Your task to perform on an android device: open app "Viber Messenger" (install if not already installed) Image 0: 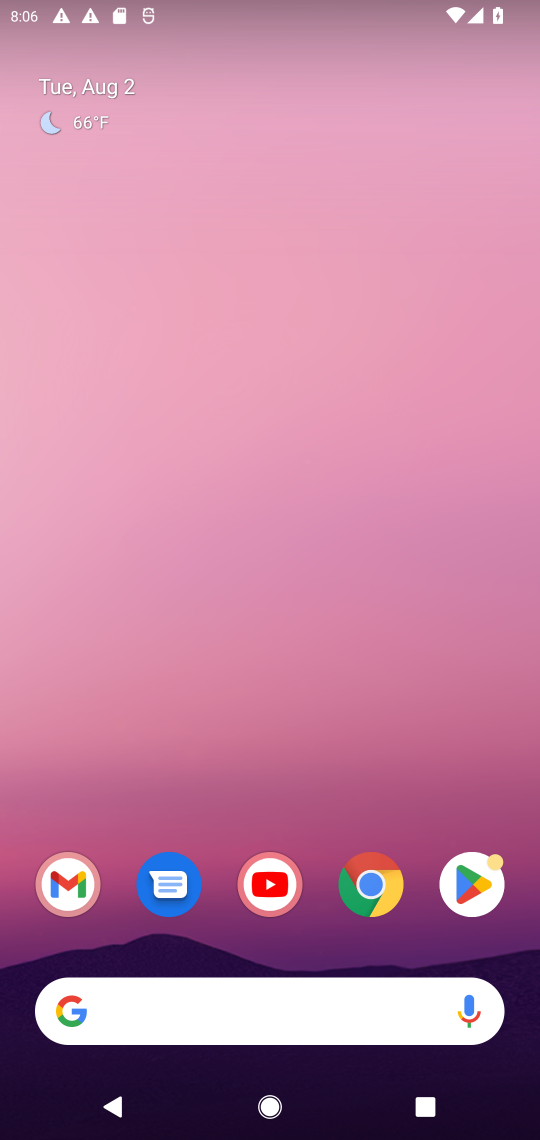
Step 0: press home button
Your task to perform on an android device: open app "Viber Messenger" (install if not already installed) Image 1: 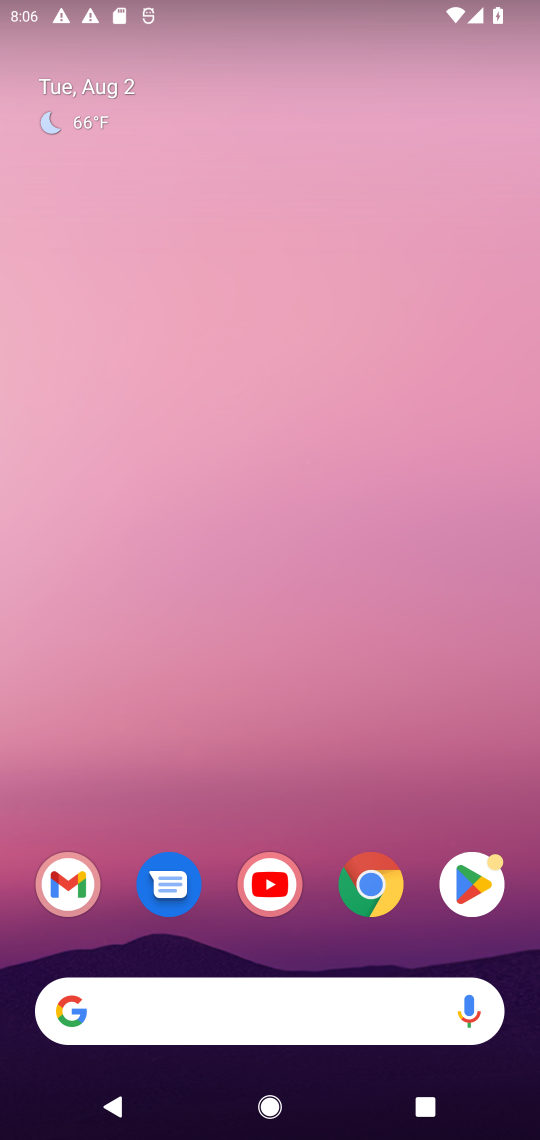
Step 1: click (470, 870)
Your task to perform on an android device: open app "Viber Messenger" (install if not already installed) Image 2: 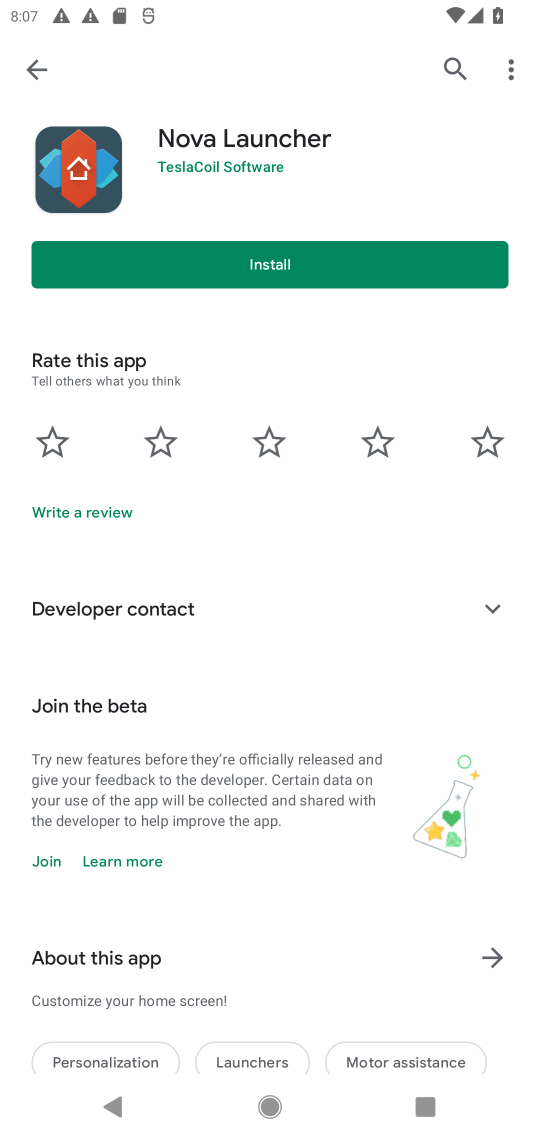
Step 2: click (445, 74)
Your task to perform on an android device: open app "Viber Messenger" (install if not already installed) Image 3: 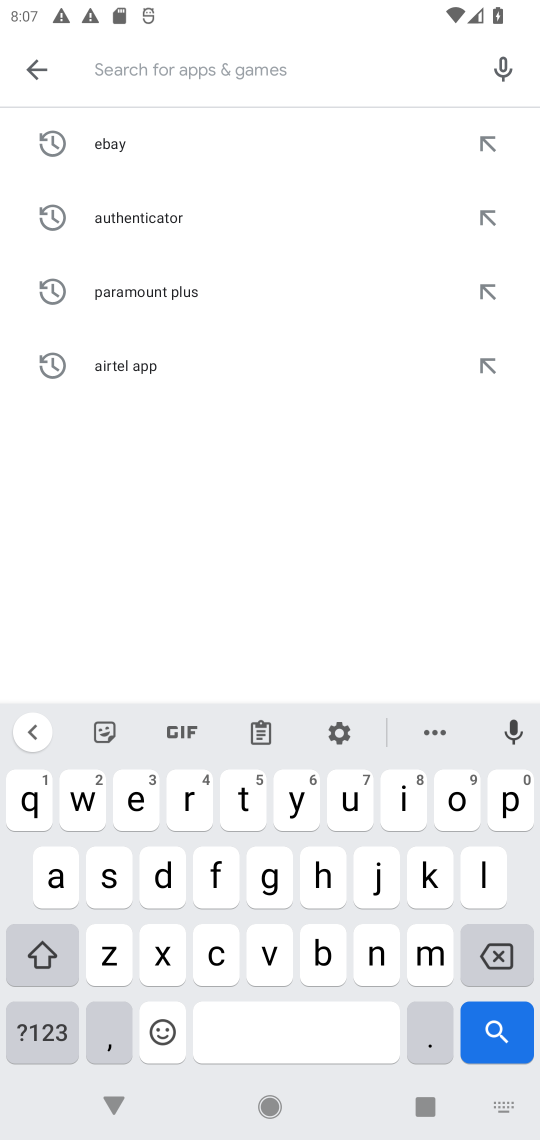
Step 3: click (267, 968)
Your task to perform on an android device: open app "Viber Messenger" (install if not already installed) Image 4: 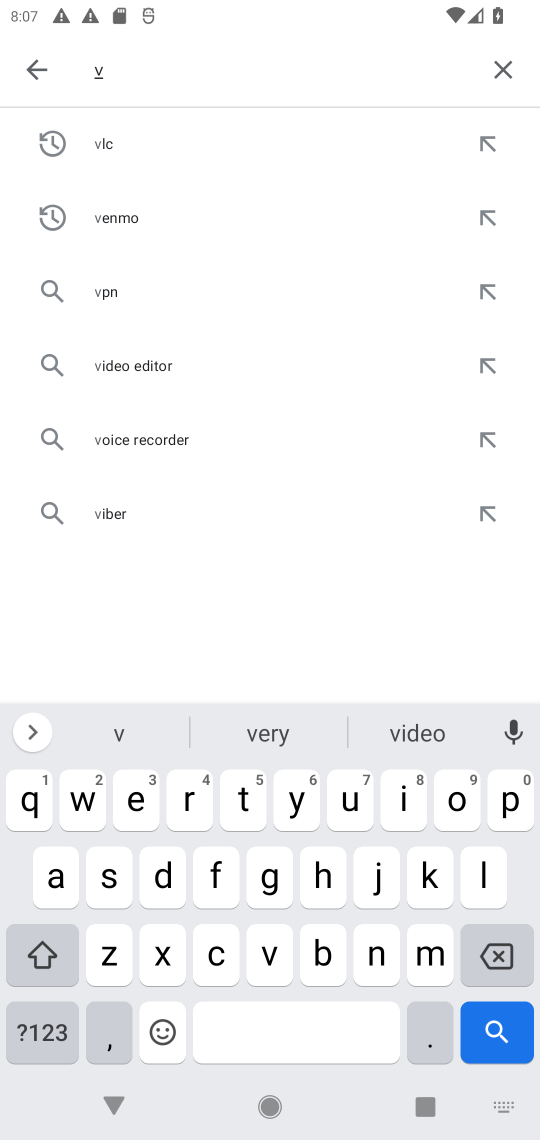
Step 4: click (405, 804)
Your task to perform on an android device: open app "Viber Messenger" (install if not already installed) Image 5: 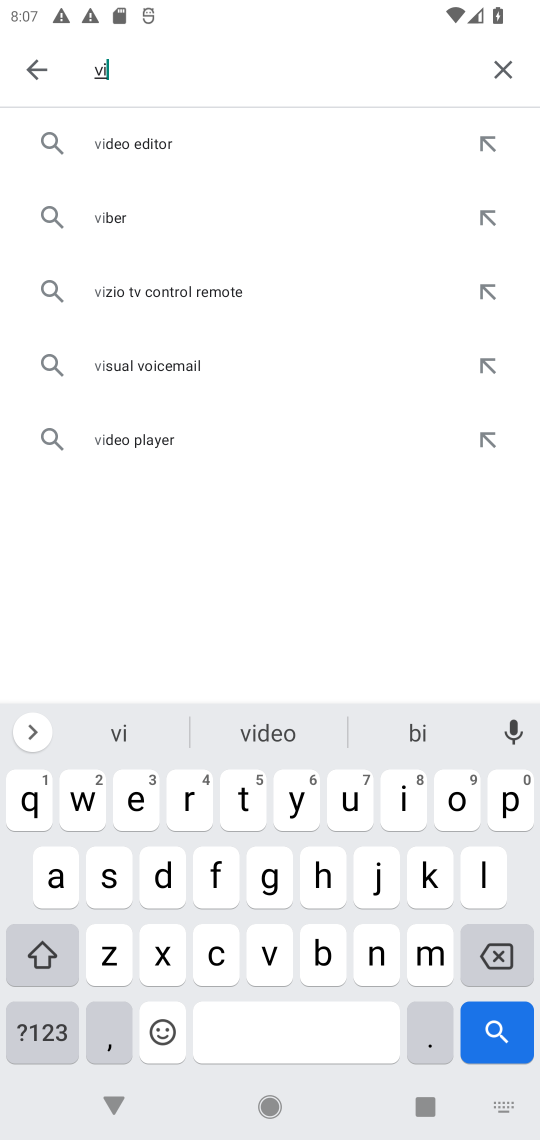
Step 5: click (306, 959)
Your task to perform on an android device: open app "Viber Messenger" (install if not already installed) Image 6: 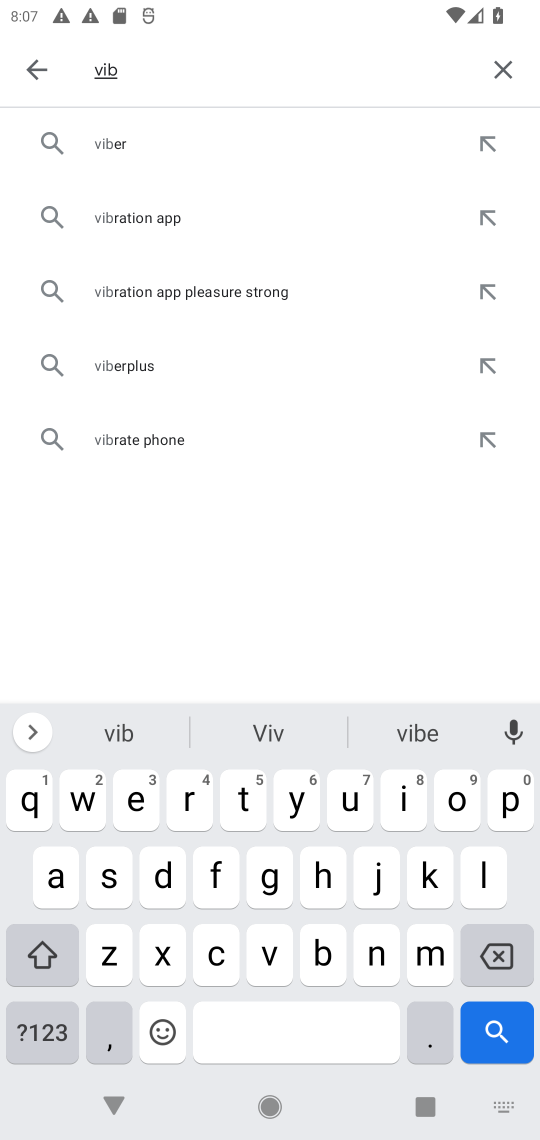
Step 6: click (133, 145)
Your task to perform on an android device: open app "Viber Messenger" (install if not already installed) Image 7: 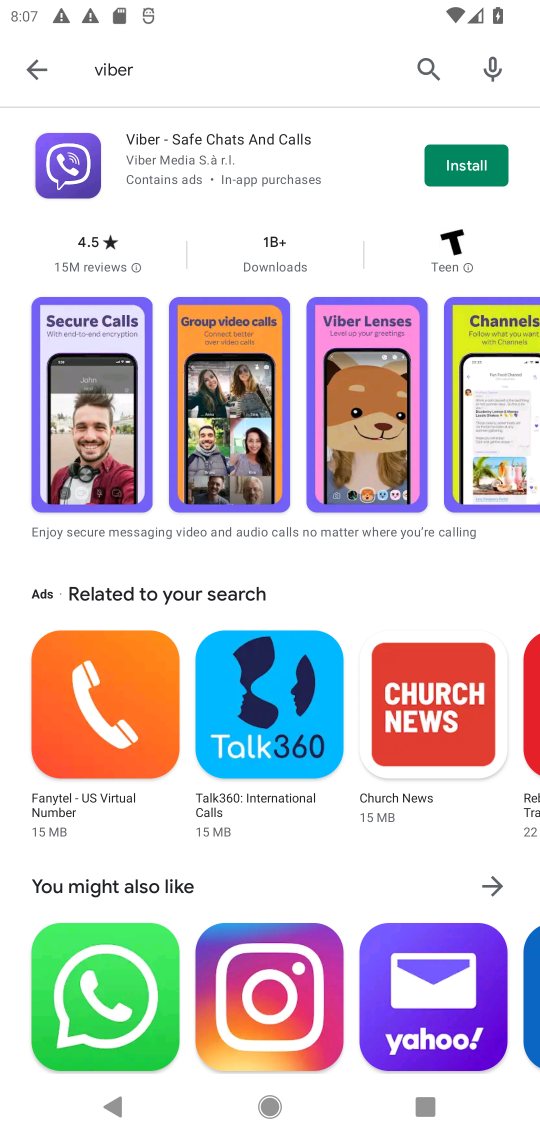
Step 7: click (449, 168)
Your task to perform on an android device: open app "Viber Messenger" (install if not already installed) Image 8: 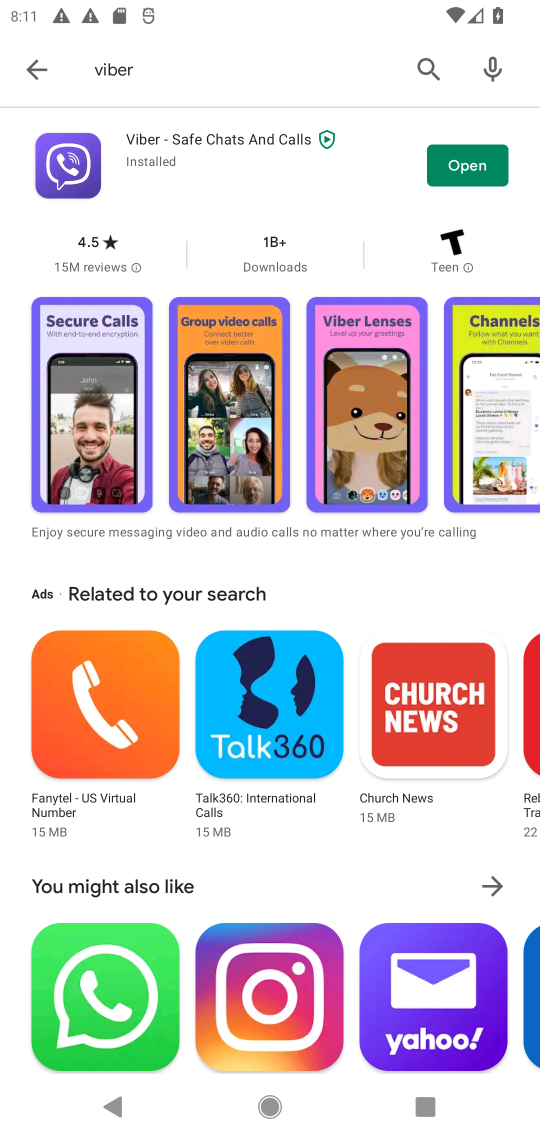
Step 8: click (435, 163)
Your task to perform on an android device: open app "Viber Messenger" (install if not already installed) Image 9: 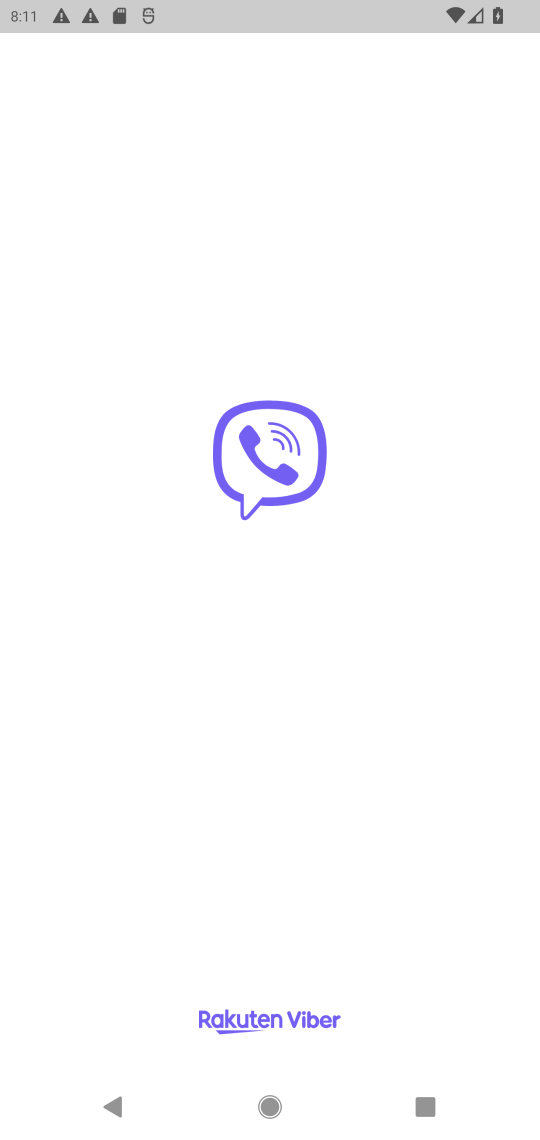
Step 9: task complete